Your task to perform on an android device: Open sound settings Image 0: 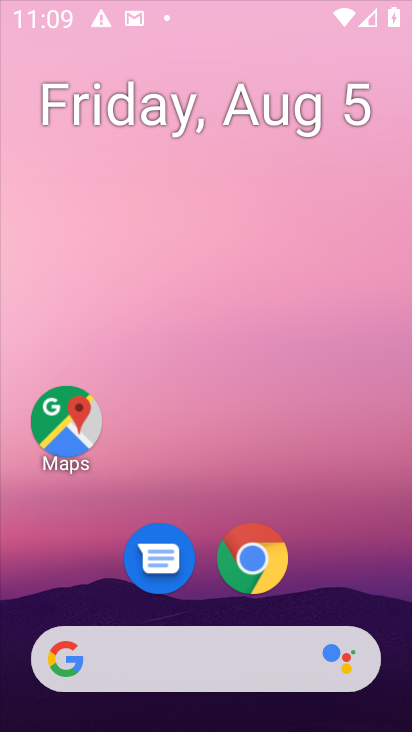
Step 0: press home button
Your task to perform on an android device: Open sound settings Image 1: 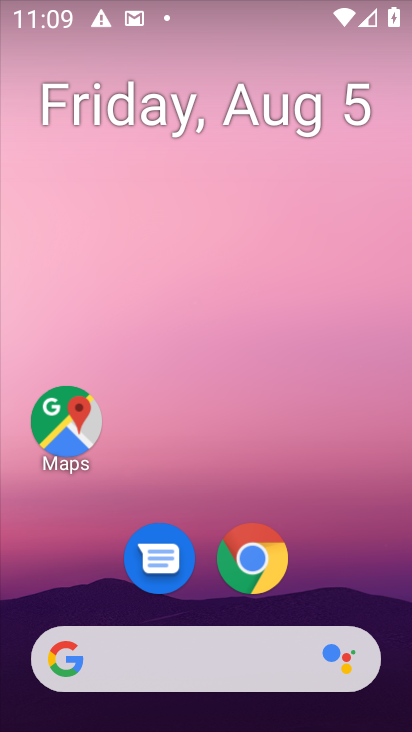
Step 1: drag from (363, 578) to (361, 243)
Your task to perform on an android device: Open sound settings Image 2: 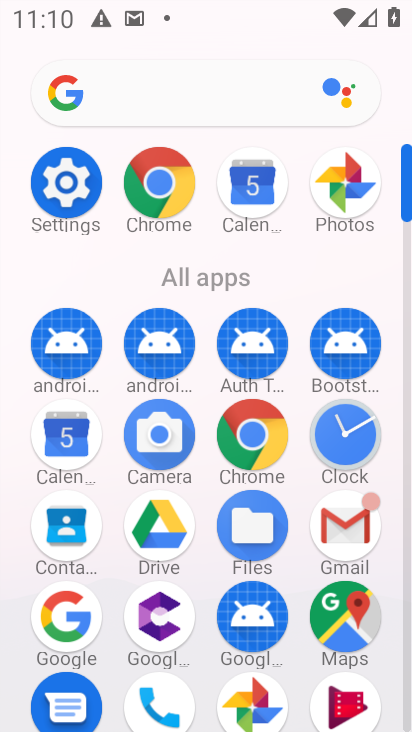
Step 2: click (73, 192)
Your task to perform on an android device: Open sound settings Image 3: 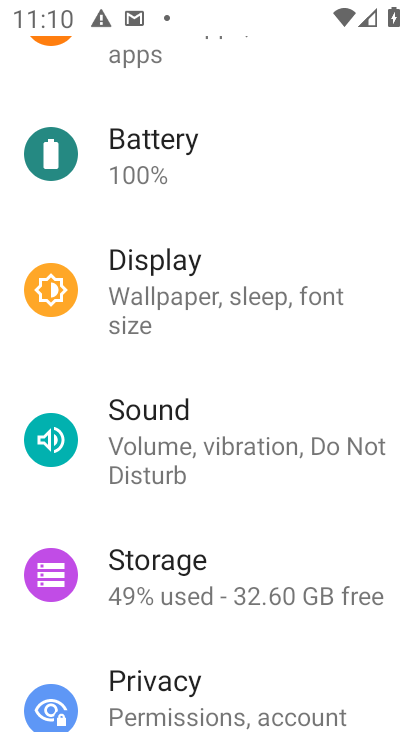
Step 3: drag from (389, 141) to (371, 285)
Your task to perform on an android device: Open sound settings Image 4: 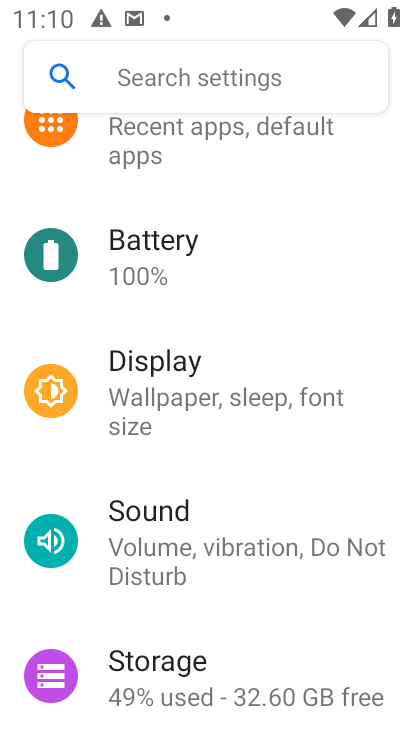
Step 4: drag from (369, 204) to (364, 312)
Your task to perform on an android device: Open sound settings Image 5: 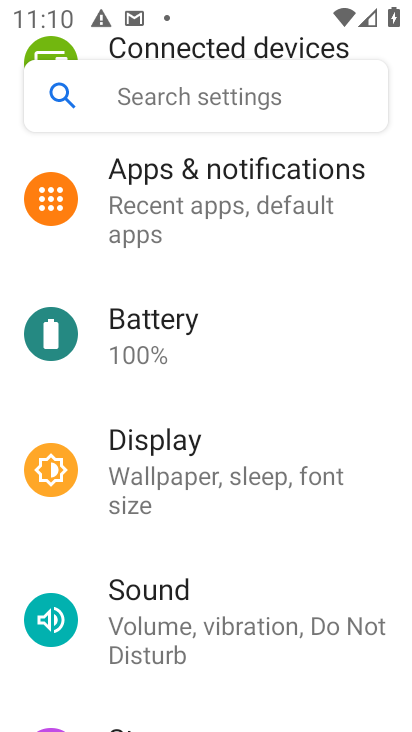
Step 5: drag from (389, 160) to (375, 330)
Your task to perform on an android device: Open sound settings Image 6: 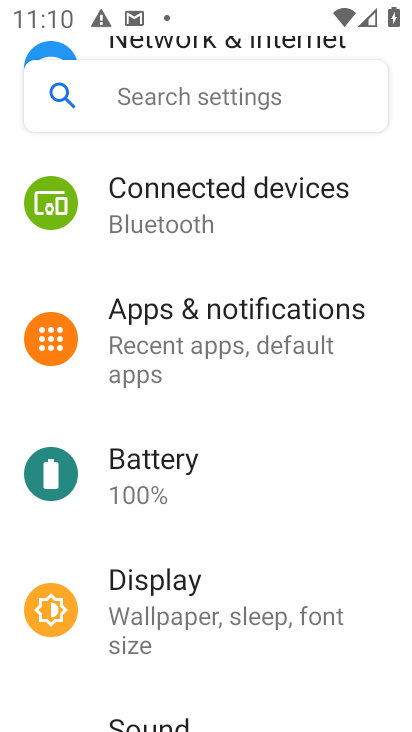
Step 6: drag from (372, 168) to (368, 313)
Your task to perform on an android device: Open sound settings Image 7: 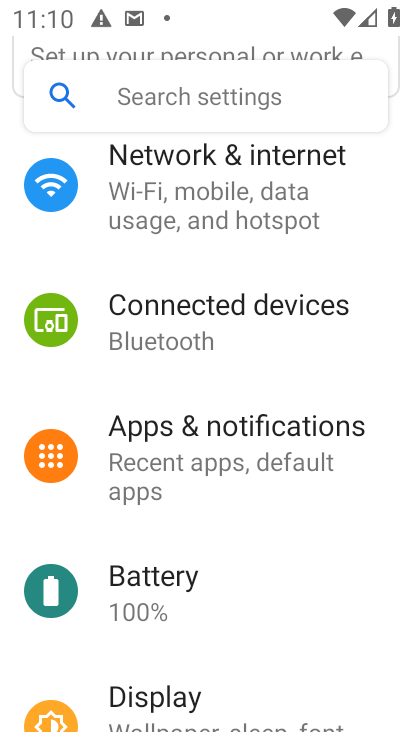
Step 7: drag from (382, 167) to (374, 313)
Your task to perform on an android device: Open sound settings Image 8: 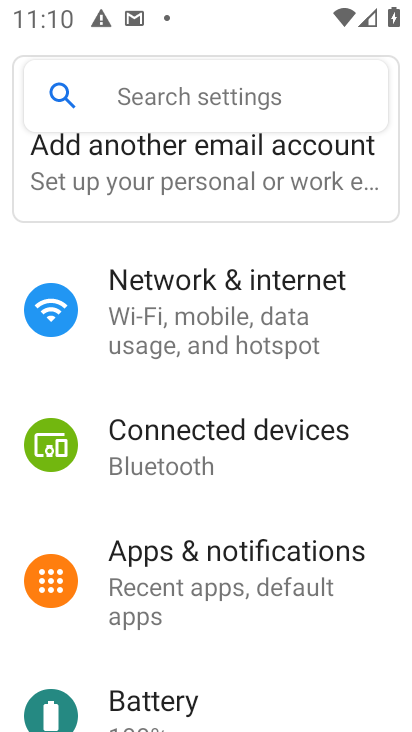
Step 8: drag from (364, 337) to (364, 234)
Your task to perform on an android device: Open sound settings Image 9: 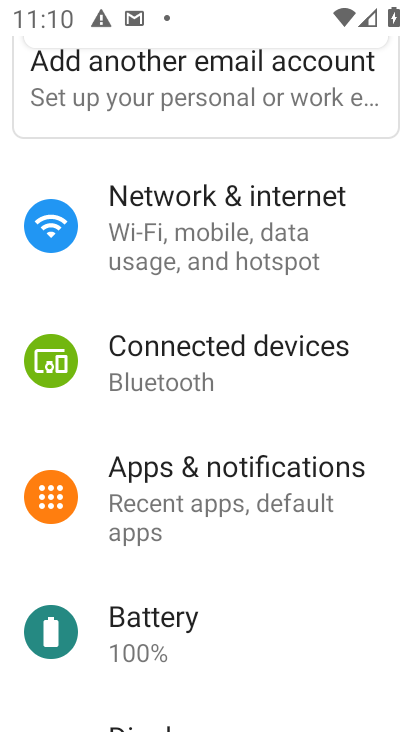
Step 9: drag from (362, 388) to (368, 294)
Your task to perform on an android device: Open sound settings Image 10: 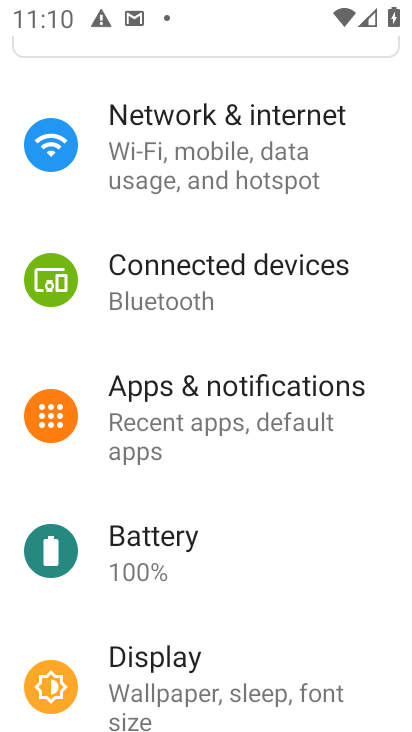
Step 10: drag from (377, 429) to (370, 322)
Your task to perform on an android device: Open sound settings Image 11: 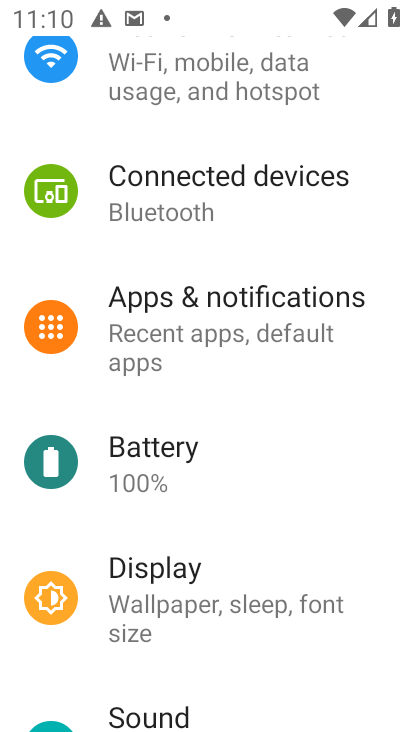
Step 11: drag from (340, 430) to (349, 302)
Your task to perform on an android device: Open sound settings Image 12: 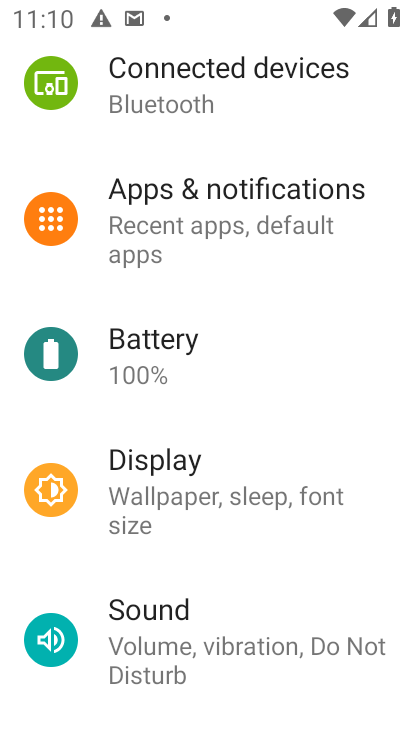
Step 12: drag from (329, 419) to (329, 284)
Your task to perform on an android device: Open sound settings Image 13: 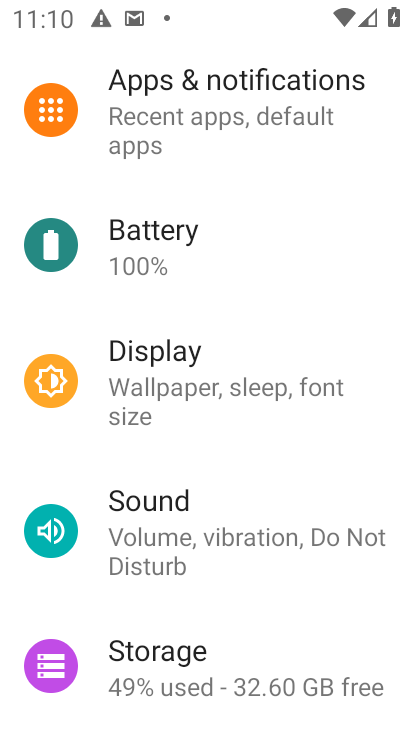
Step 13: drag from (331, 434) to (337, 268)
Your task to perform on an android device: Open sound settings Image 14: 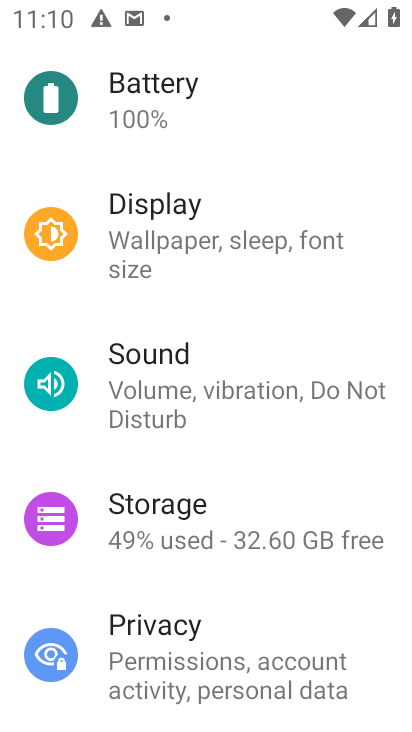
Step 14: drag from (340, 457) to (350, 322)
Your task to perform on an android device: Open sound settings Image 15: 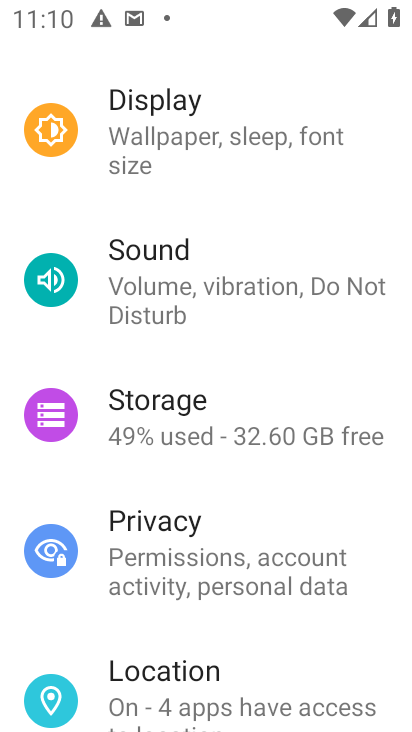
Step 15: click (338, 270)
Your task to perform on an android device: Open sound settings Image 16: 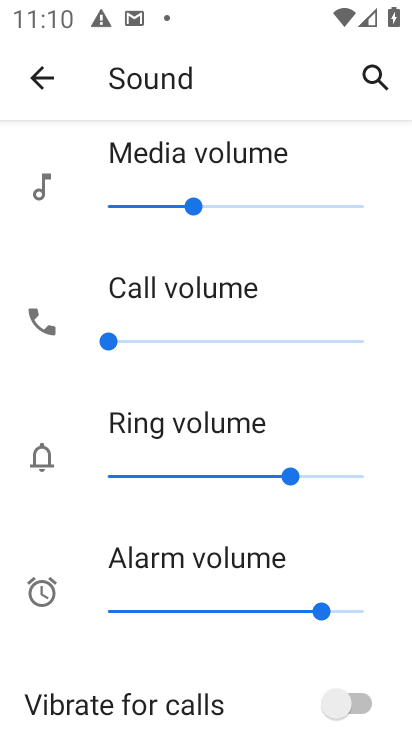
Step 16: task complete